Your task to perform on an android device: Find coffee shops on Maps Image 0: 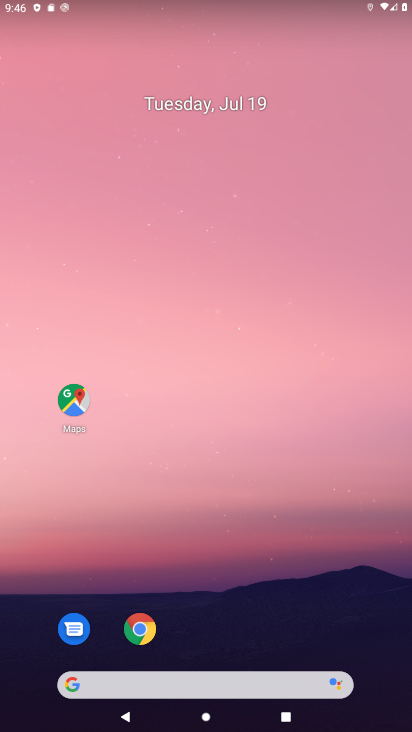
Step 0: click (72, 407)
Your task to perform on an android device: Find coffee shops on Maps Image 1: 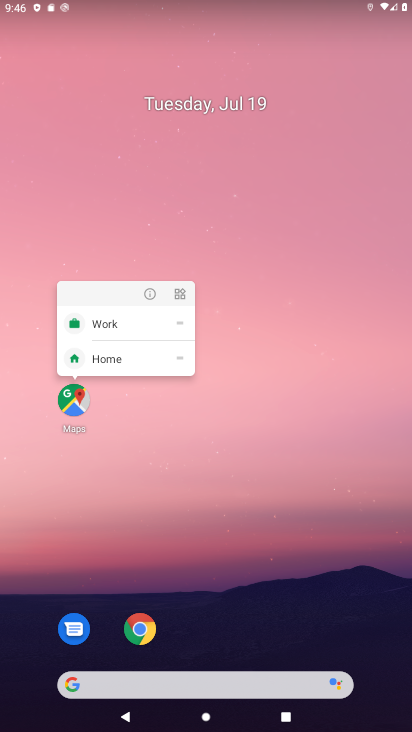
Step 1: click (66, 417)
Your task to perform on an android device: Find coffee shops on Maps Image 2: 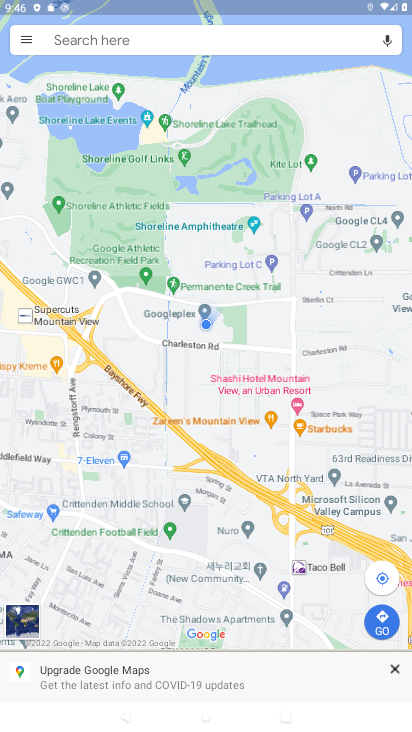
Step 2: click (151, 44)
Your task to perform on an android device: Find coffee shops on Maps Image 3: 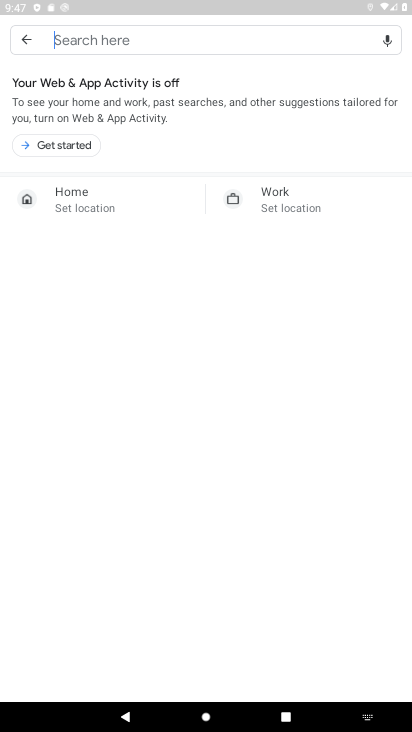
Step 3: type "coffee shops"
Your task to perform on an android device: Find coffee shops on Maps Image 4: 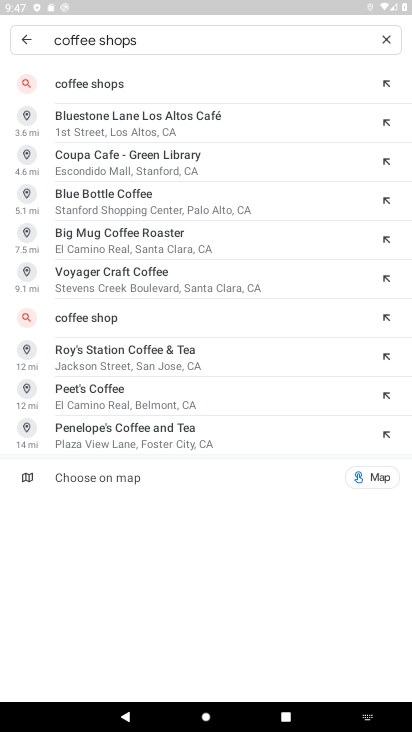
Step 4: click (90, 79)
Your task to perform on an android device: Find coffee shops on Maps Image 5: 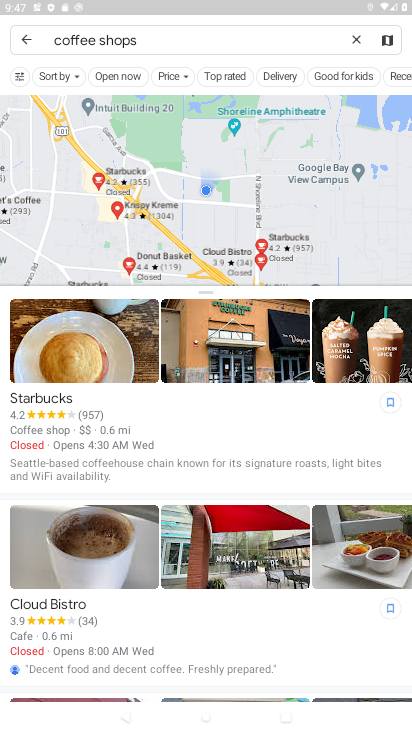
Step 5: task complete